Your task to perform on an android device: Search for "lg ultragear" on ebay, select the first entry, and add it to the cart. Image 0: 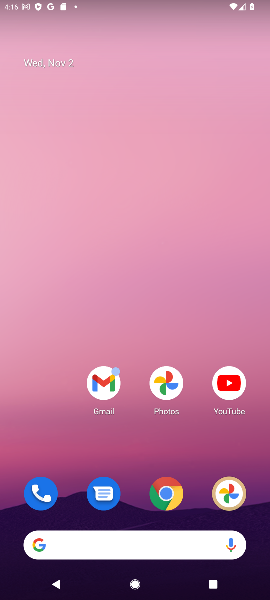
Step 0: drag from (78, 508) to (123, 172)
Your task to perform on an android device: Search for "lg ultragear" on ebay, select the first entry, and add it to the cart. Image 1: 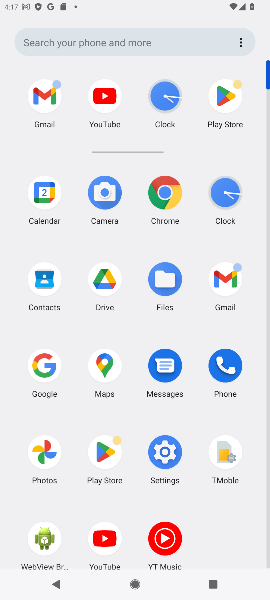
Step 1: click (44, 363)
Your task to perform on an android device: Search for "lg ultragear" on ebay, select the first entry, and add it to the cart. Image 2: 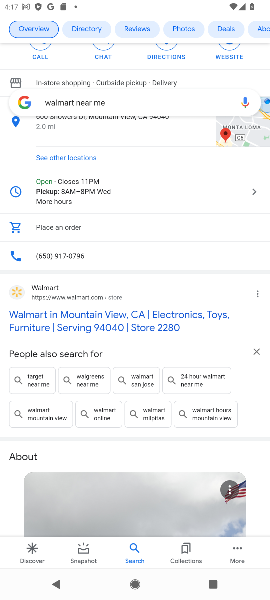
Step 2: drag from (86, 105) to (96, 420)
Your task to perform on an android device: Search for "lg ultragear" on ebay, select the first entry, and add it to the cart. Image 3: 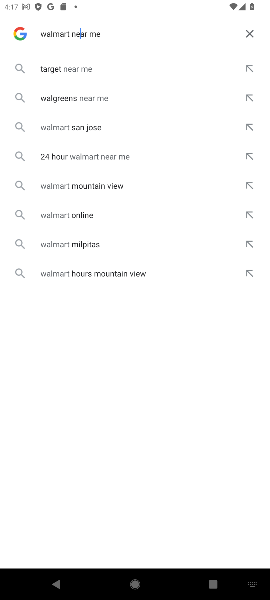
Step 3: click (246, 33)
Your task to perform on an android device: Search for "lg ultragear" on ebay, select the first entry, and add it to the cart. Image 4: 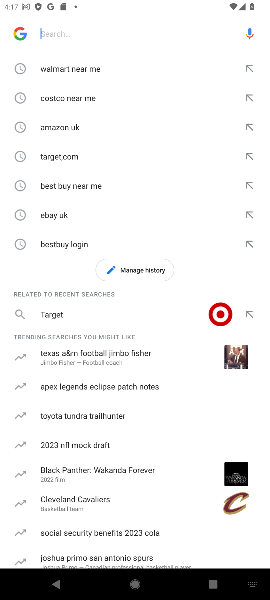
Step 4: click (44, 30)
Your task to perform on an android device: Search for "lg ultragear" on ebay, select the first entry, and add it to the cart. Image 5: 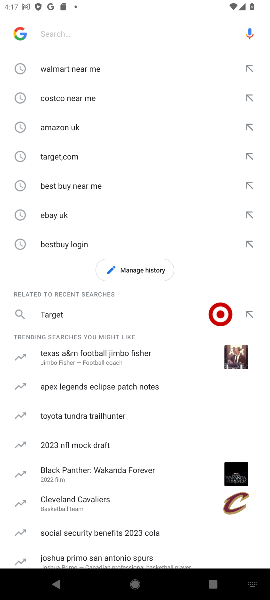
Step 5: type "ebay "
Your task to perform on an android device: Search for "lg ultragear" on ebay, select the first entry, and add it to the cart. Image 6: 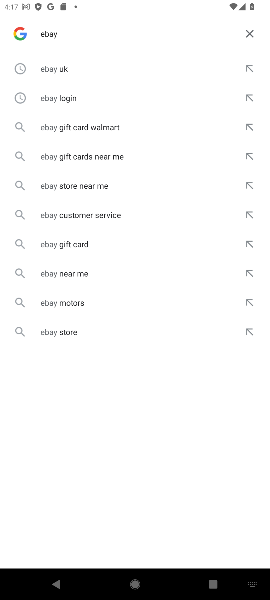
Step 6: click (70, 62)
Your task to perform on an android device: Search for "lg ultragear" on ebay, select the first entry, and add it to the cart. Image 7: 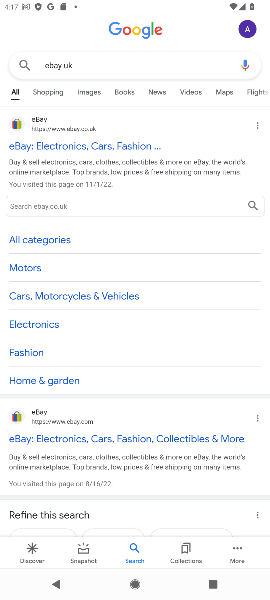
Step 7: click (16, 121)
Your task to perform on an android device: Search for "lg ultragear" on ebay, select the first entry, and add it to the cart. Image 8: 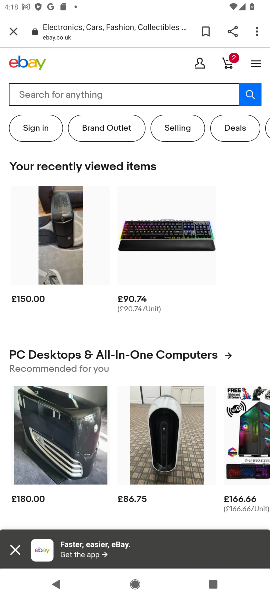
Step 8: click (122, 85)
Your task to perform on an android device: Search for "lg ultragear" on ebay, select the first entry, and add it to the cart. Image 9: 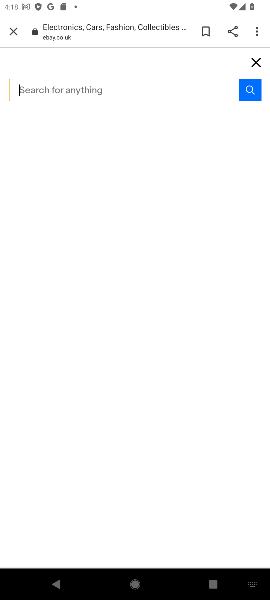
Step 9: type "lg ultragear "
Your task to perform on an android device: Search for "lg ultragear" on ebay, select the first entry, and add it to the cart. Image 10: 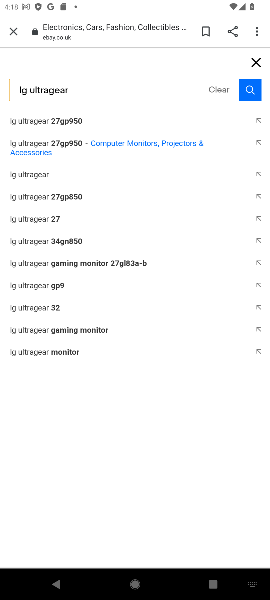
Step 10: click (44, 123)
Your task to perform on an android device: Search for "lg ultragear" on ebay, select the first entry, and add it to the cart. Image 11: 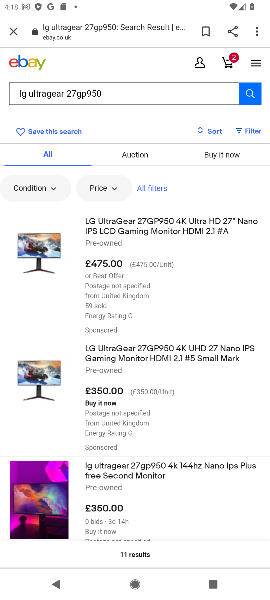
Step 11: click (158, 218)
Your task to perform on an android device: Search for "lg ultragear" on ebay, select the first entry, and add it to the cart. Image 12: 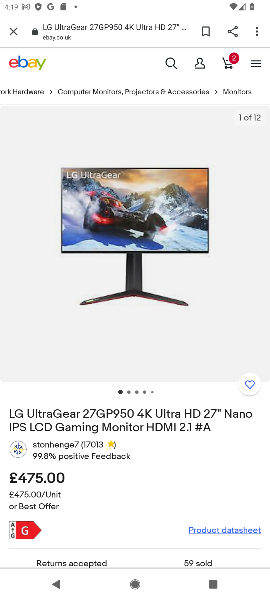
Step 12: drag from (140, 499) to (157, 294)
Your task to perform on an android device: Search for "lg ultragear" on ebay, select the first entry, and add it to the cart. Image 13: 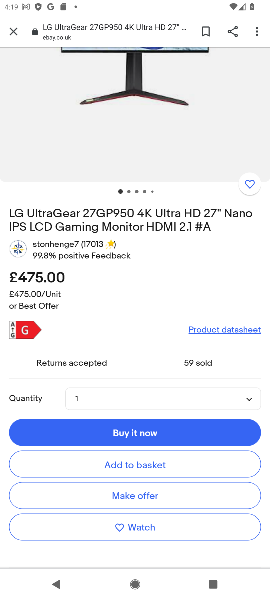
Step 13: click (168, 460)
Your task to perform on an android device: Search for "lg ultragear" on ebay, select the first entry, and add it to the cart. Image 14: 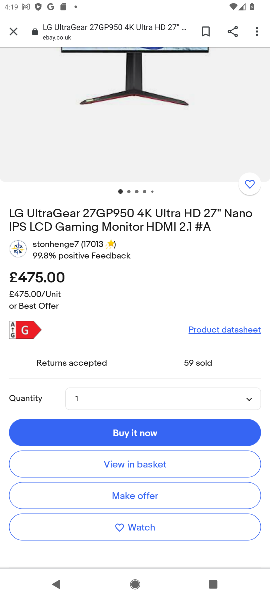
Step 14: click (152, 457)
Your task to perform on an android device: Search for "lg ultragear" on ebay, select the first entry, and add it to the cart. Image 15: 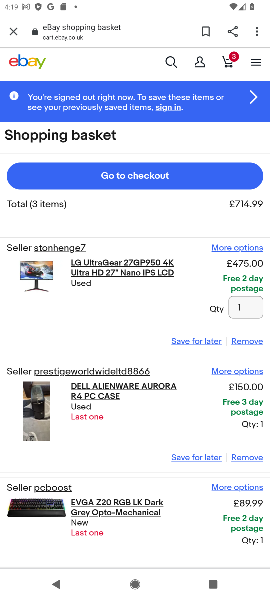
Step 15: task complete